Your task to perform on an android device: Open Google Chrome and click the shortcut for Amazon.com Image 0: 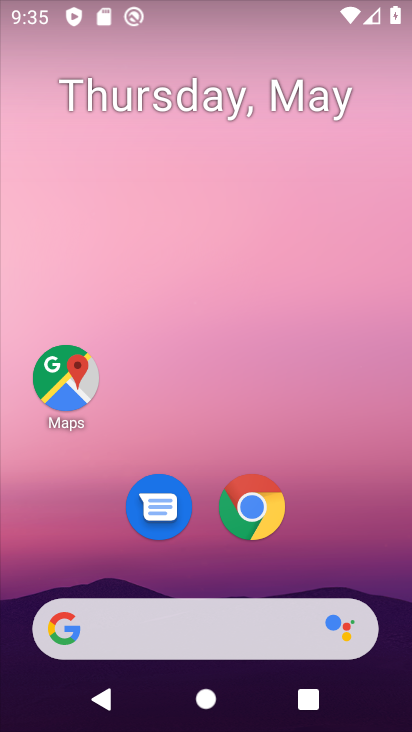
Step 0: click (248, 496)
Your task to perform on an android device: Open Google Chrome and click the shortcut for Amazon.com Image 1: 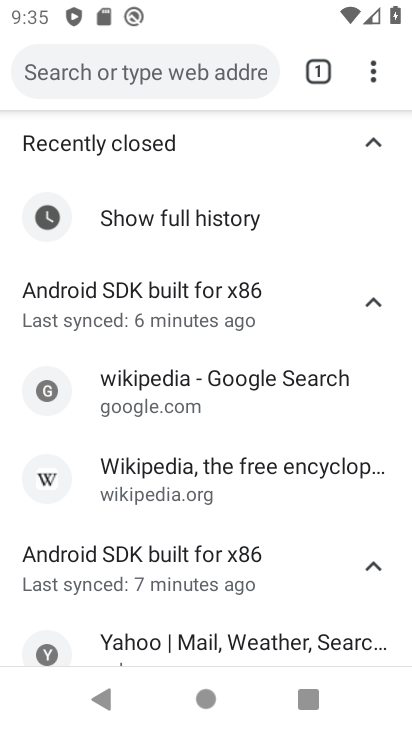
Step 1: click (324, 67)
Your task to perform on an android device: Open Google Chrome and click the shortcut for Amazon.com Image 2: 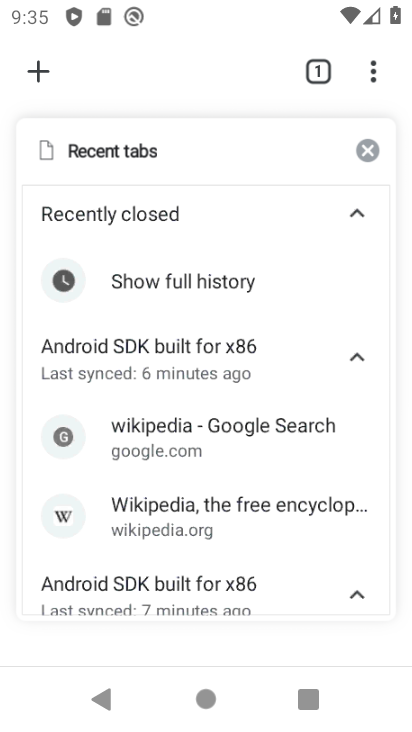
Step 2: click (25, 72)
Your task to perform on an android device: Open Google Chrome and click the shortcut for Amazon.com Image 3: 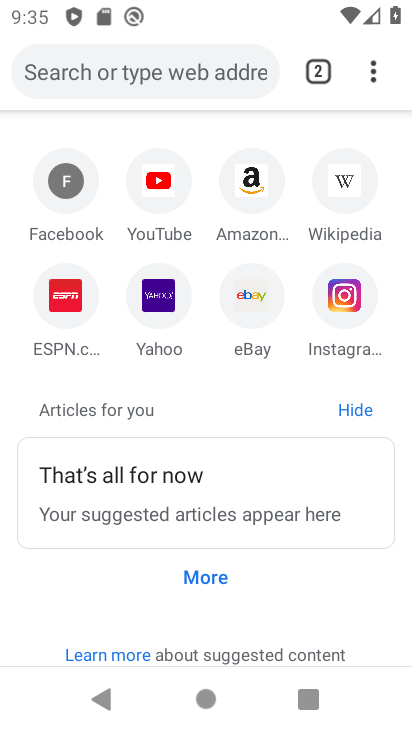
Step 3: click (264, 184)
Your task to perform on an android device: Open Google Chrome and click the shortcut for Amazon.com Image 4: 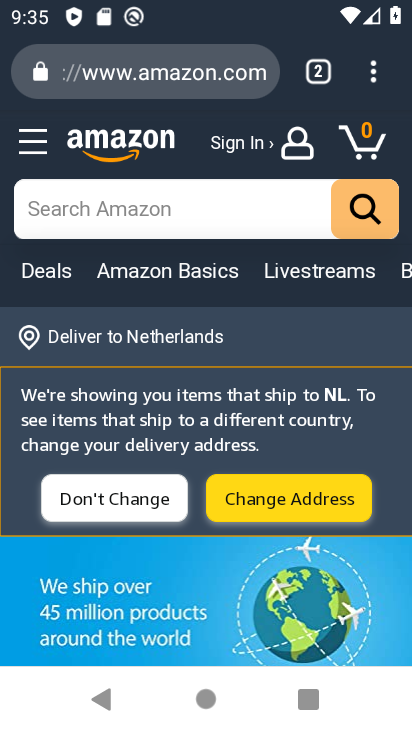
Step 4: task complete